Your task to perform on an android device: turn on showing notifications on the lock screen Image 0: 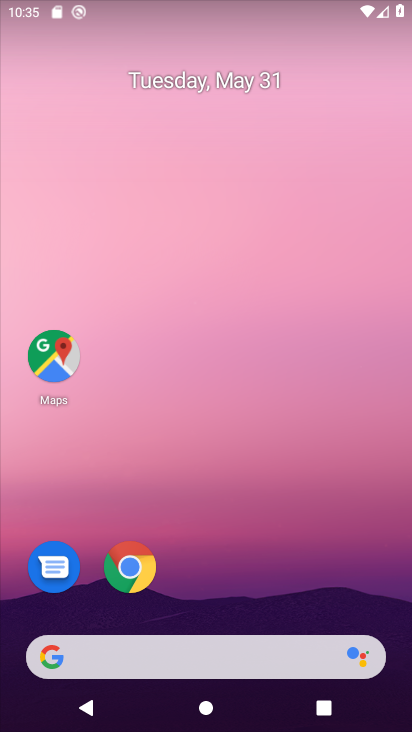
Step 0: drag from (239, 624) to (202, 6)
Your task to perform on an android device: turn on showing notifications on the lock screen Image 1: 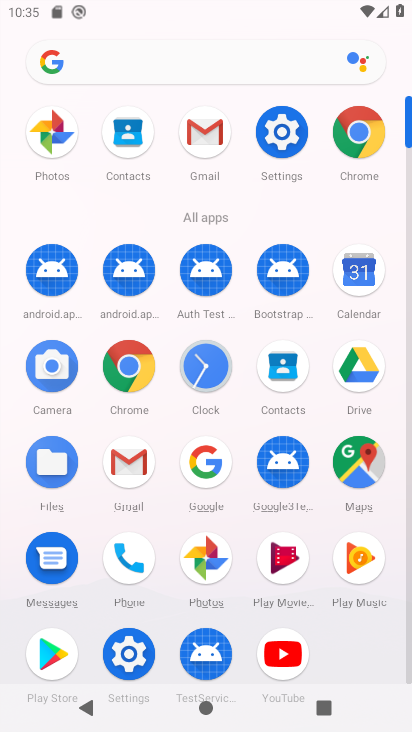
Step 1: click (282, 144)
Your task to perform on an android device: turn on showing notifications on the lock screen Image 2: 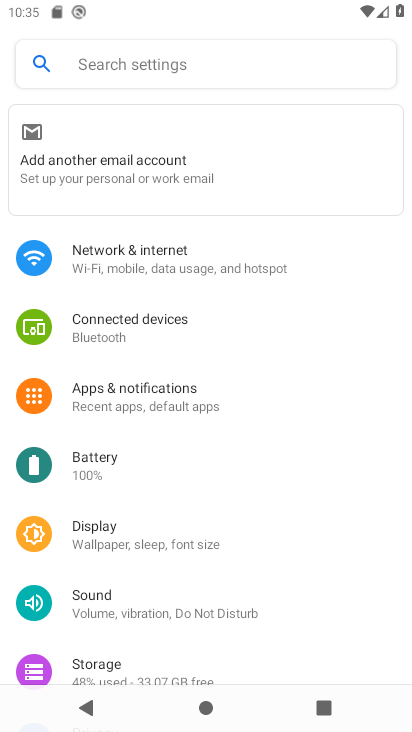
Step 2: click (166, 384)
Your task to perform on an android device: turn on showing notifications on the lock screen Image 3: 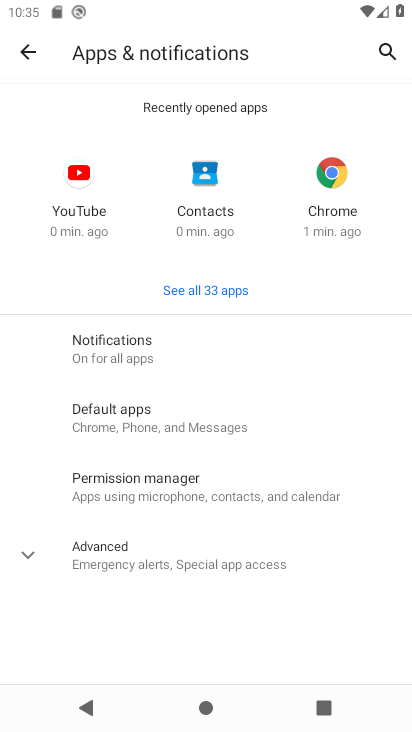
Step 3: click (145, 347)
Your task to perform on an android device: turn on showing notifications on the lock screen Image 4: 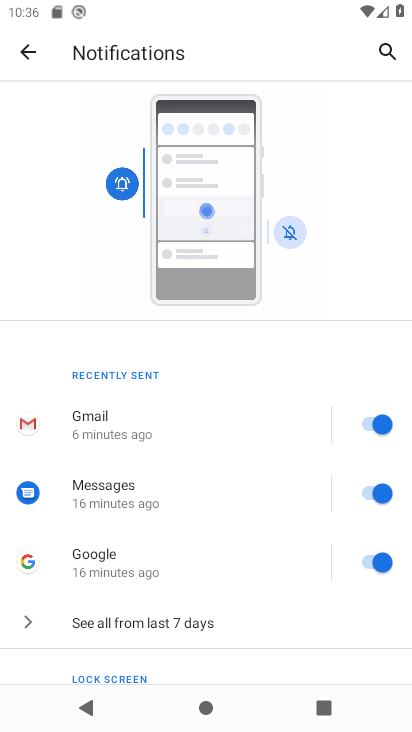
Step 4: drag from (157, 488) to (188, 85)
Your task to perform on an android device: turn on showing notifications on the lock screen Image 5: 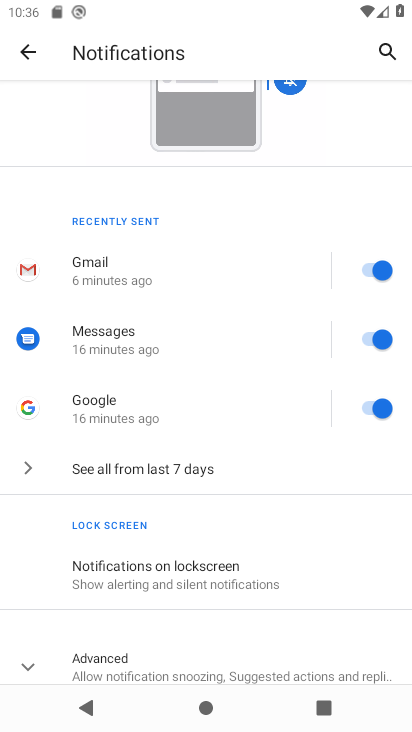
Step 5: click (147, 586)
Your task to perform on an android device: turn on showing notifications on the lock screen Image 6: 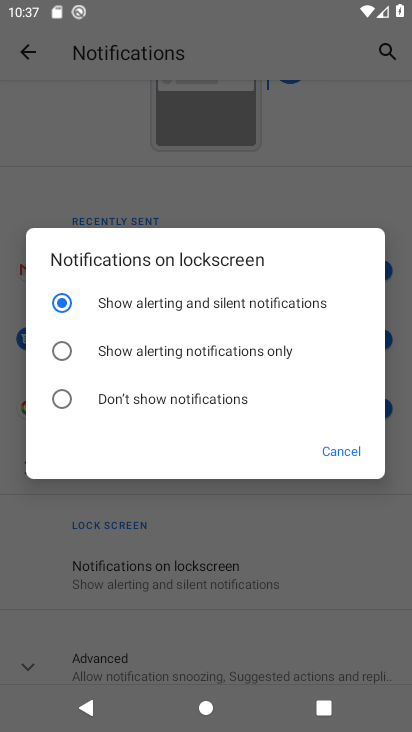
Step 6: task complete